Your task to perform on an android device: turn off airplane mode Image 0: 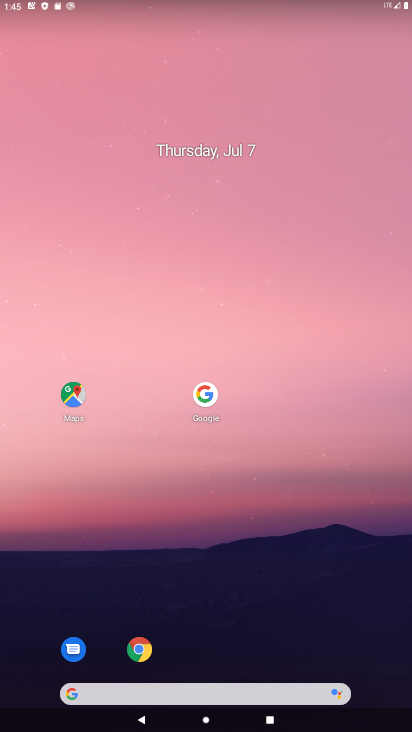
Step 0: press home button
Your task to perform on an android device: turn off airplane mode Image 1: 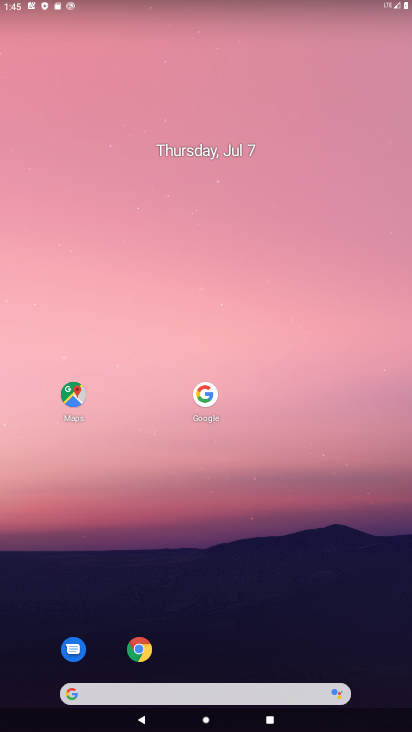
Step 1: task complete